Your task to perform on an android device: empty trash in the gmail app Image 0: 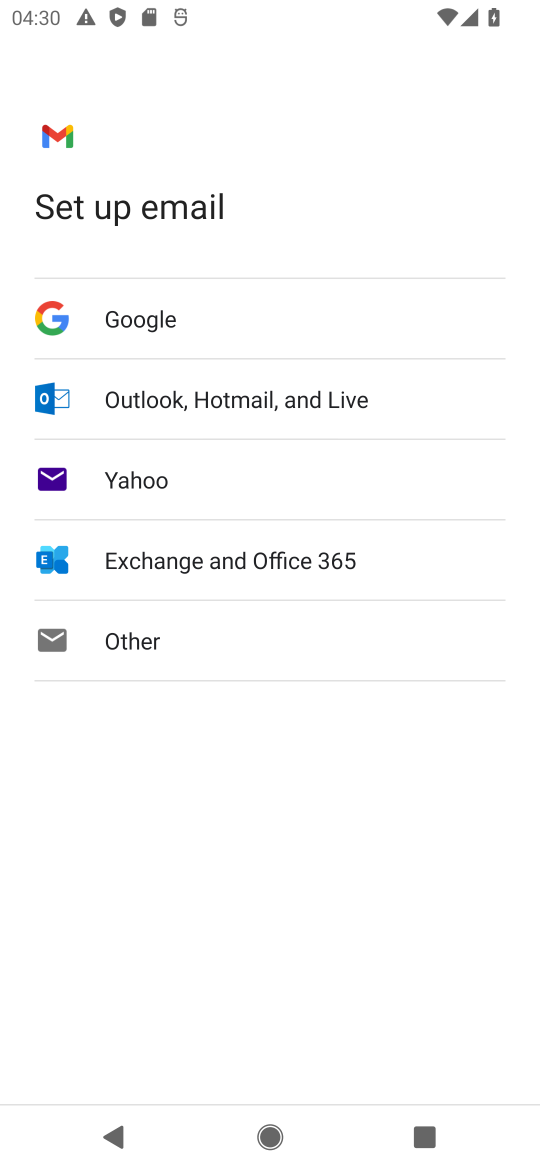
Step 0: press home button
Your task to perform on an android device: empty trash in the gmail app Image 1: 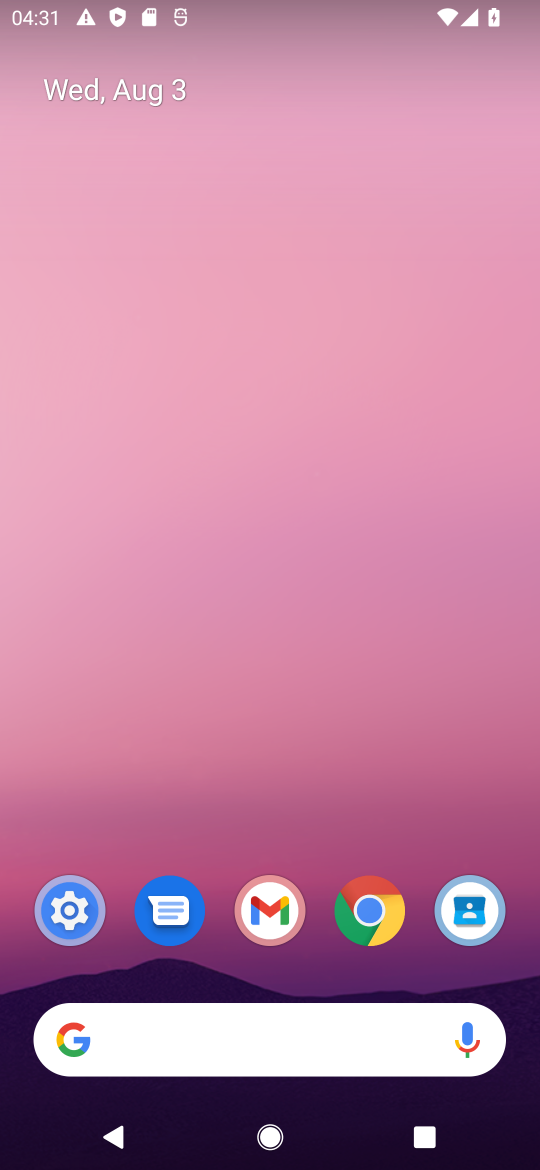
Step 1: click (278, 911)
Your task to perform on an android device: empty trash in the gmail app Image 2: 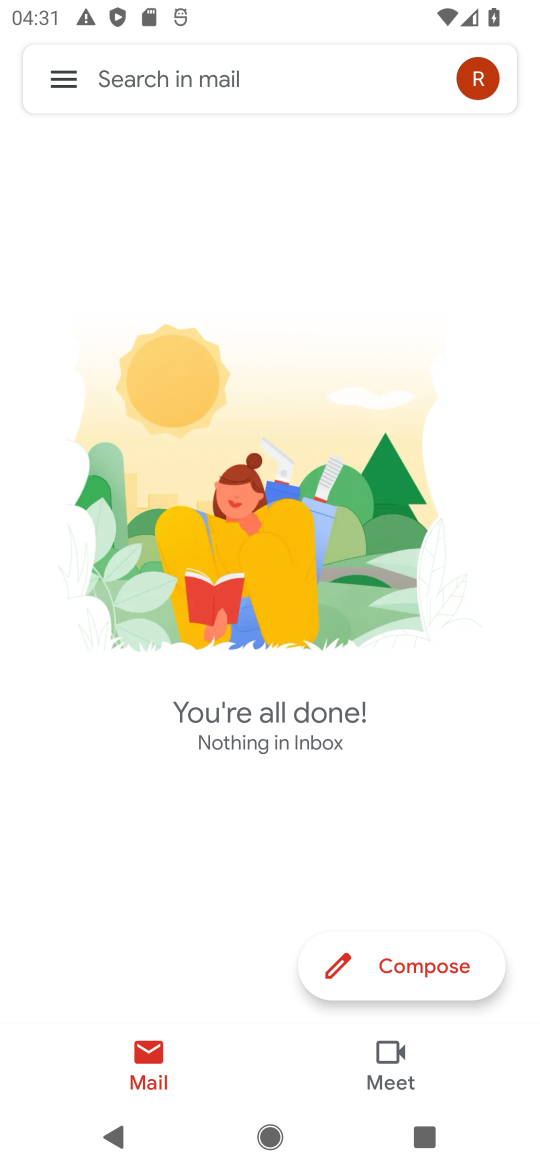
Step 2: click (56, 76)
Your task to perform on an android device: empty trash in the gmail app Image 3: 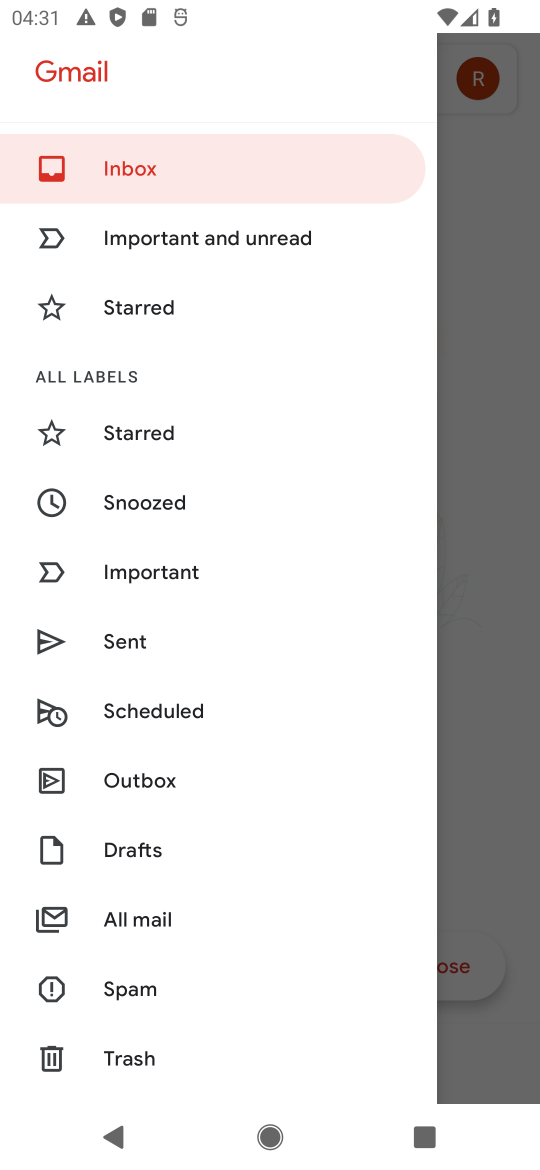
Step 3: click (152, 1051)
Your task to perform on an android device: empty trash in the gmail app Image 4: 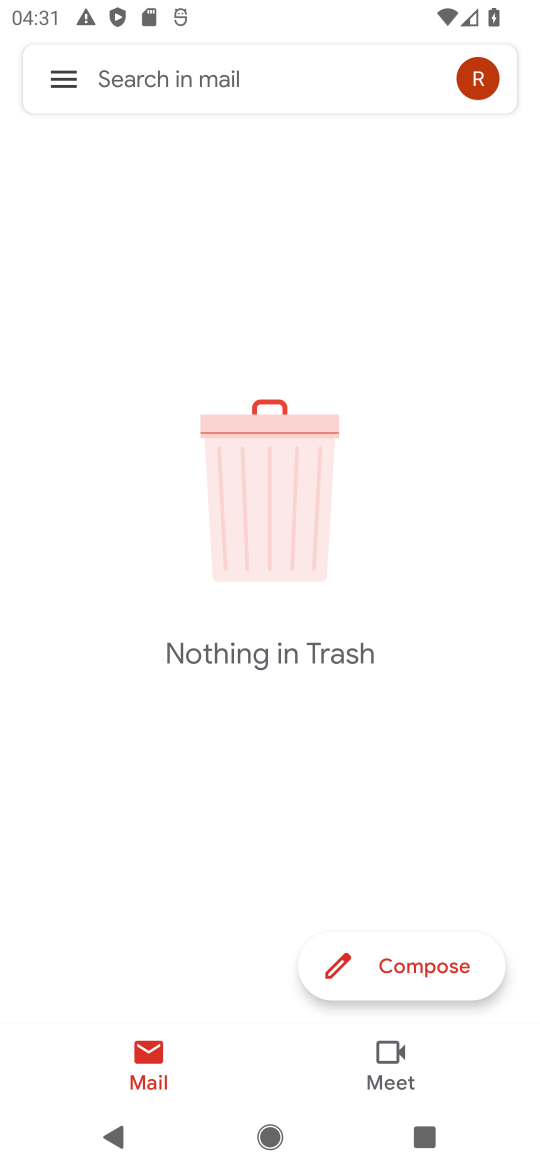
Step 4: task complete